Your task to perform on an android device: Toggle the flashlight Image 0: 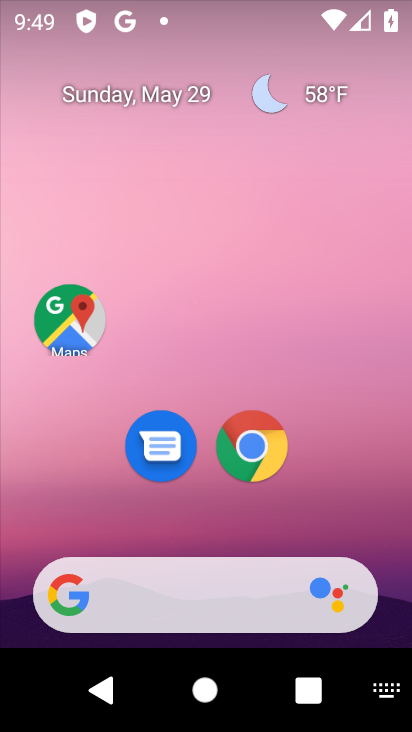
Step 0: drag from (354, 486) to (172, 9)
Your task to perform on an android device: Toggle the flashlight Image 1: 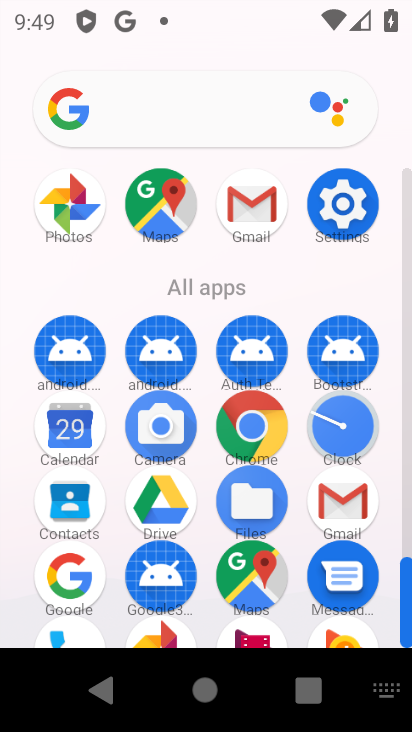
Step 1: drag from (10, 562) to (31, 254)
Your task to perform on an android device: Toggle the flashlight Image 2: 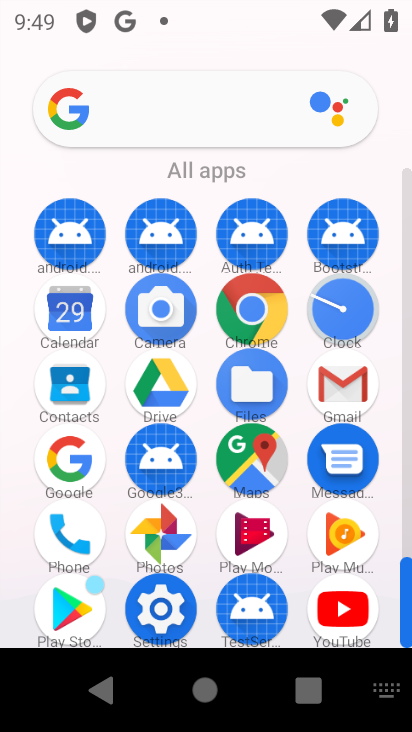
Step 2: drag from (9, 491) to (28, 229)
Your task to perform on an android device: Toggle the flashlight Image 3: 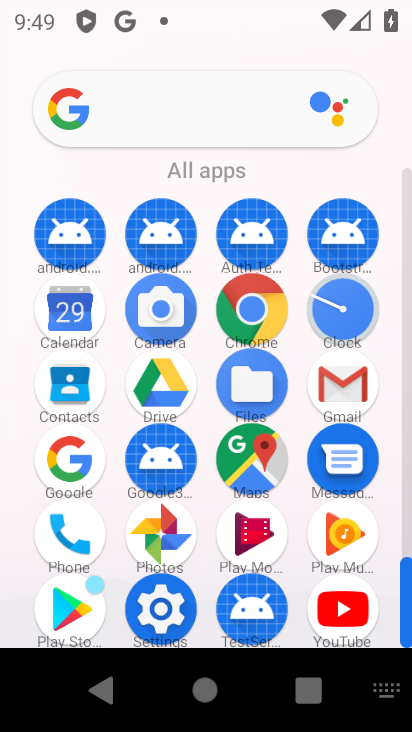
Step 3: click (161, 603)
Your task to perform on an android device: Toggle the flashlight Image 4: 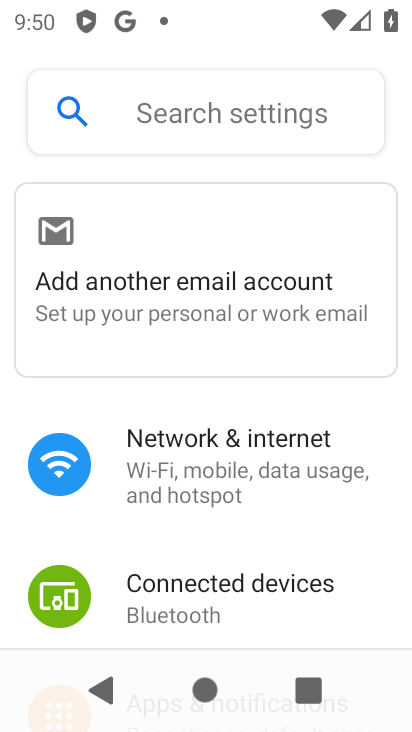
Step 4: click (227, 490)
Your task to perform on an android device: Toggle the flashlight Image 5: 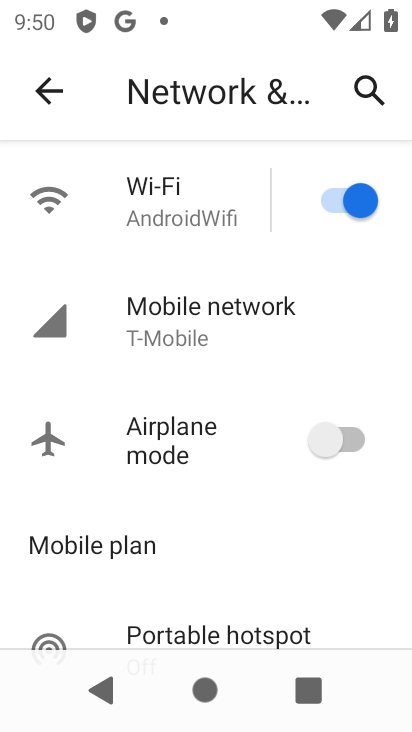
Step 5: drag from (189, 512) to (180, 166)
Your task to perform on an android device: Toggle the flashlight Image 6: 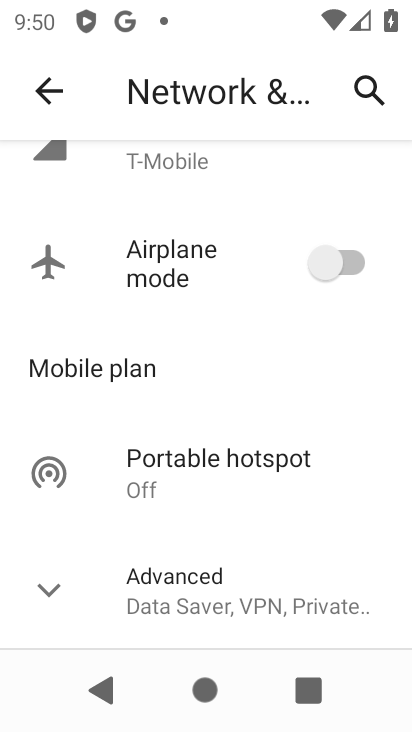
Step 6: drag from (194, 603) to (212, 205)
Your task to perform on an android device: Toggle the flashlight Image 7: 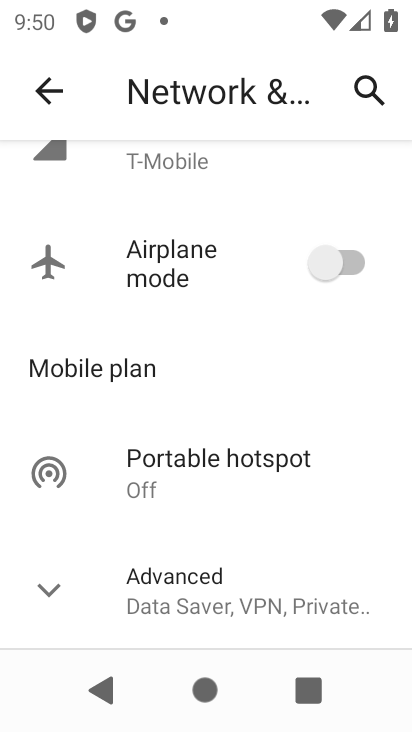
Step 7: click (62, 568)
Your task to perform on an android device: Toggle the flashlight Image 8: 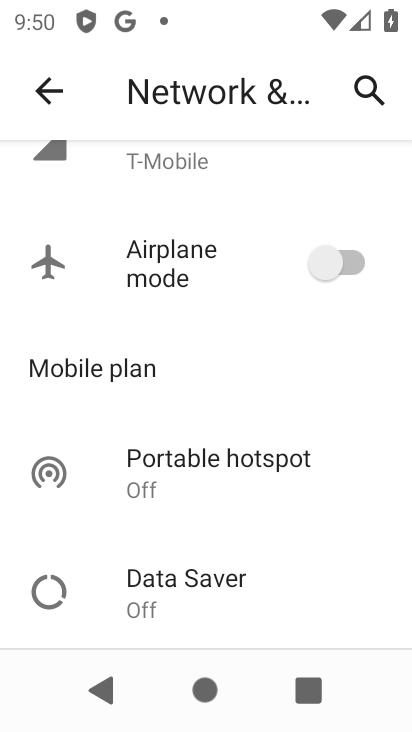
Step 8: drag from (227, 551) to (222, 135)
Your task to perform on an android device: Toggle the flashlight Image 9: 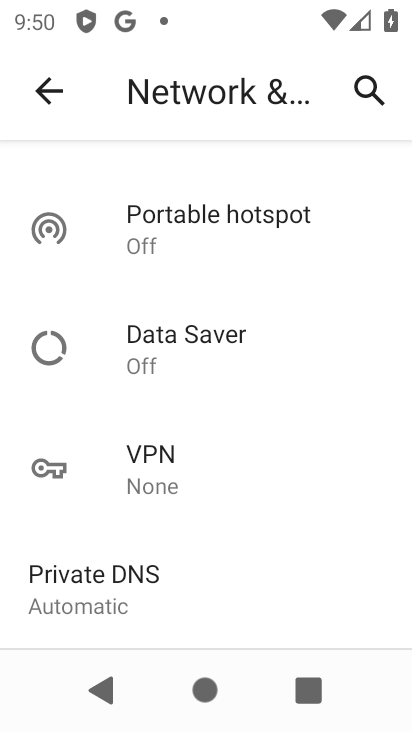
Step 9: drag from (199, 513) to (214, 248)
Your task to perform on an android device: Toggle the flashlight Image 10: 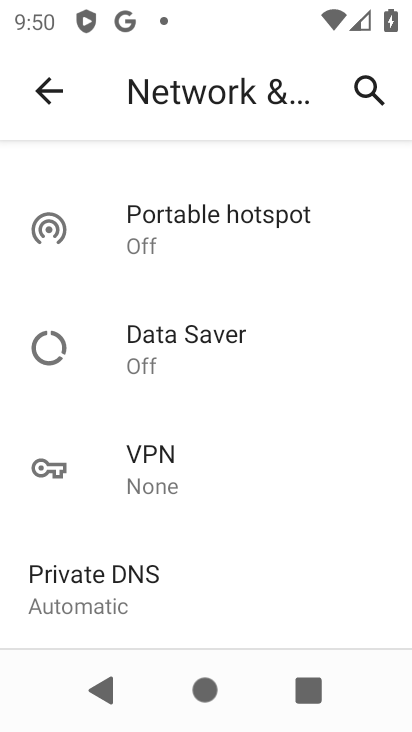
Step 10: click (50, 92)
Your task to perform on an android device: Toggle the flashlight Image 11: 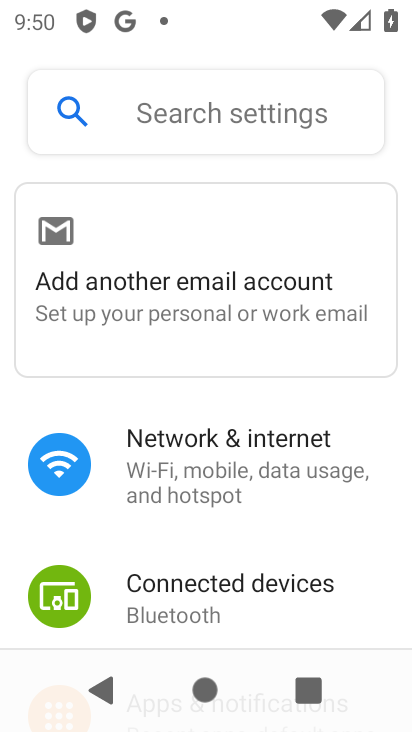
Step 11: click (330, 470)
Your task to perform on an android device: Toggle the flashlight Image 12: 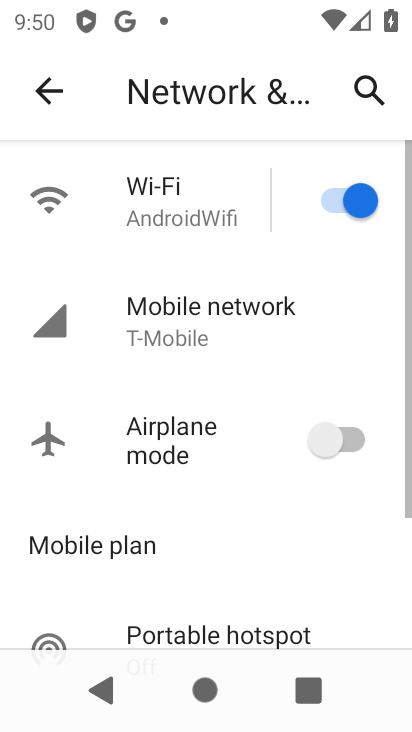
Step 12: task complete